Your task to perform on an android device: Open the stopwatch Image 0: 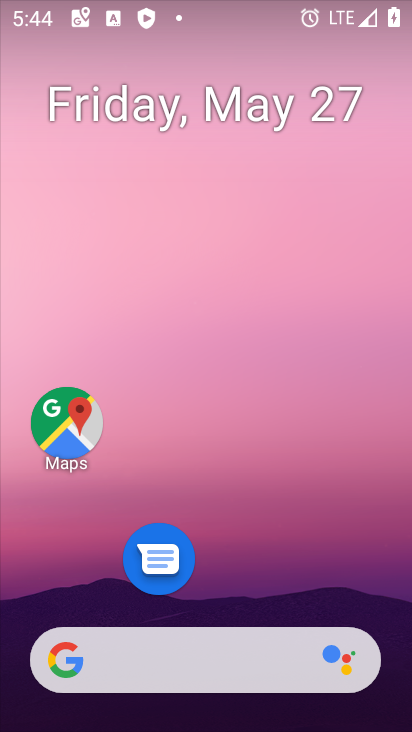
Step 0: drag from (322, 671) to (345, 44)
Your task to perform on an android device: Open the stopwatch Image 1: 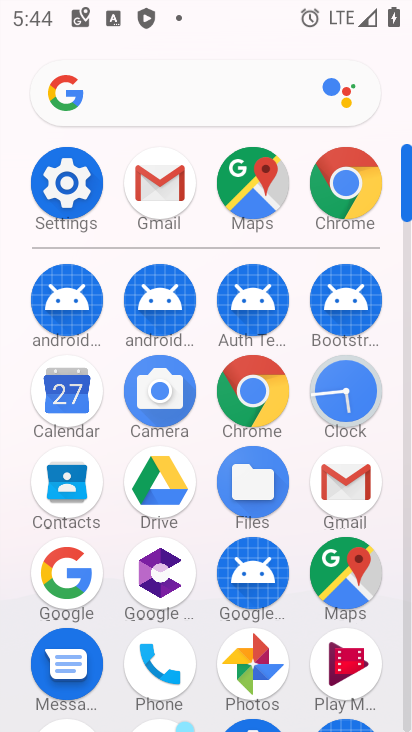
Step 1: click (349, 405)
Your task to perform on an android device: Open the stopwatch Image 2: 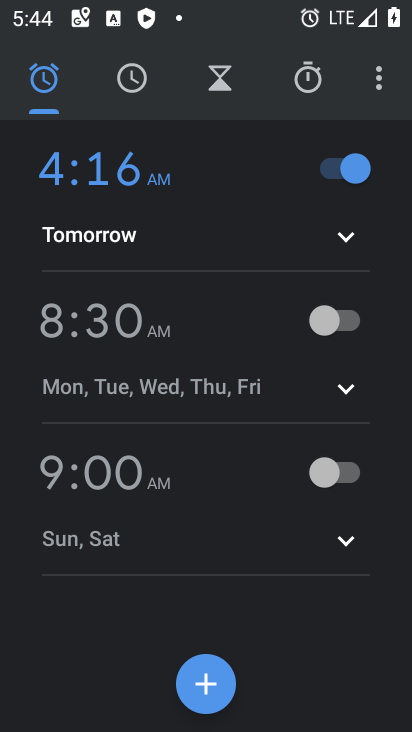
Step 2: click (296, 74)
Your task to perform on an android device: Open the stopwatch Image 3: 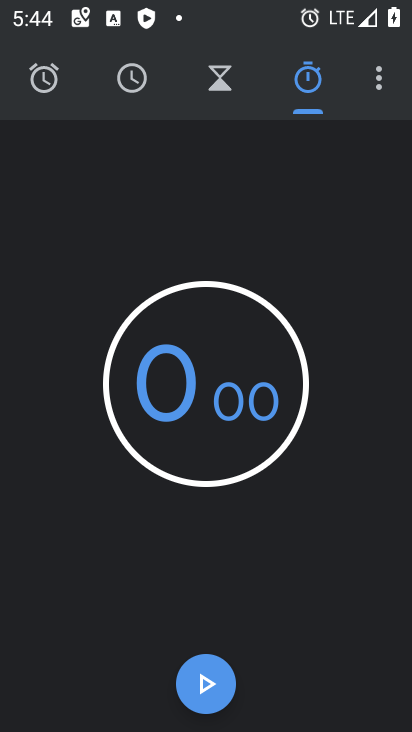
Step 3: task complete